Your task to perform on an android device: toggle javascript in the chrome app Image 0: 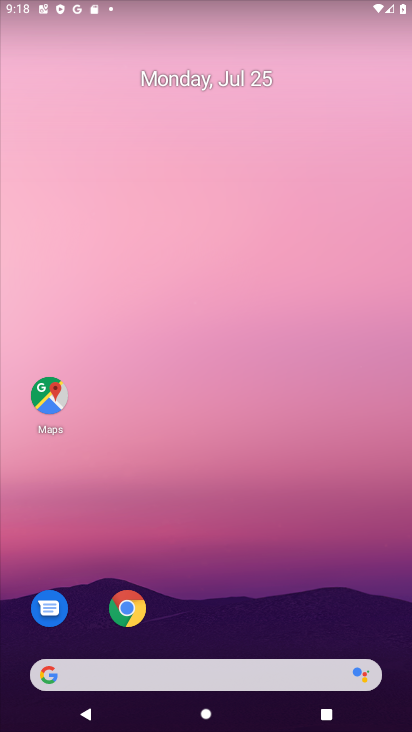
Step 0: drag from (358, 631) to (293, 164)
Your task to perform on an android device: toggle javascript in the chrome app Image 1: 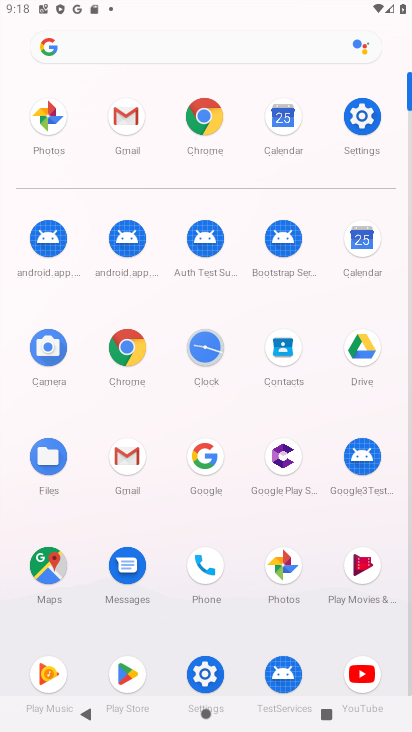
Step 1: click (198, 108)
Your task to perform on an android device: toggle javascript in the chrome app Image 2: 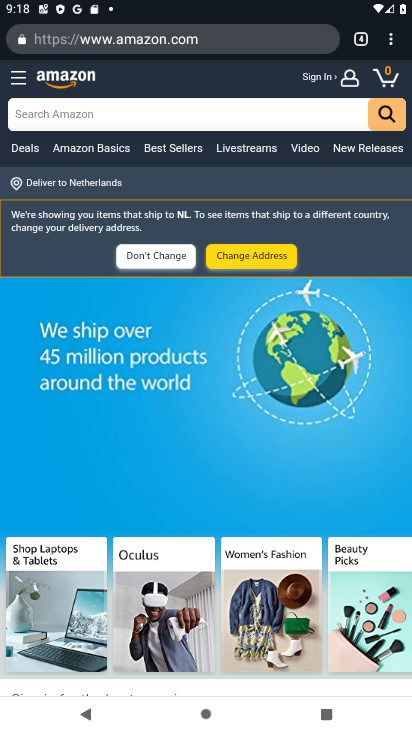
Step 2: click (393, 28)
Your task to perform on an android device: toggle javascript in the chrome app Image 3: 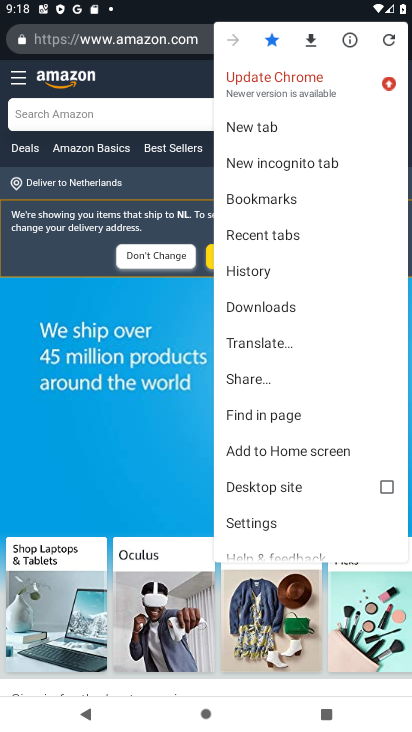
Step 3: click (289, 518)
Your task to perform on an android device: toggle javascript in the chrome app Image 4: 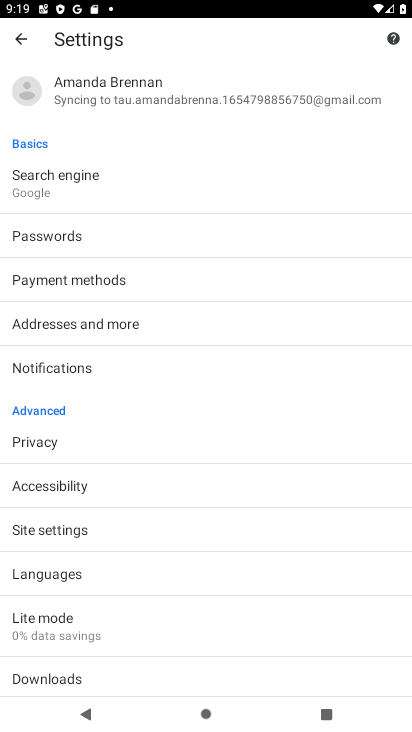
Step 4: click (79, 519)
Your task to perform on an android device: toggle javascript in the chrome app Image 5: 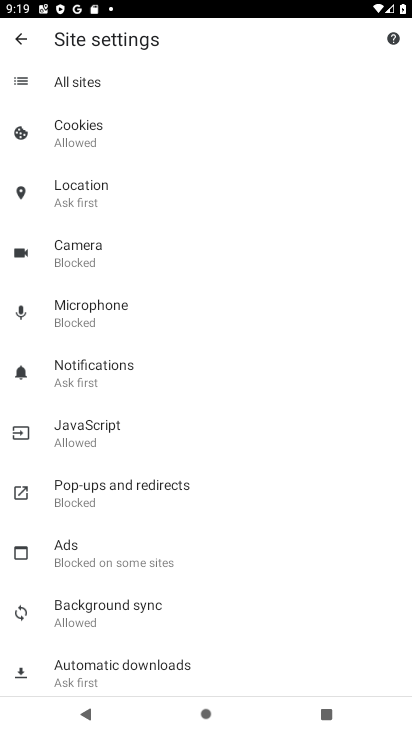
Step 5: click (127, 436)
Your task to perform on an android device: toggle javascript in the chrome app Image 6: 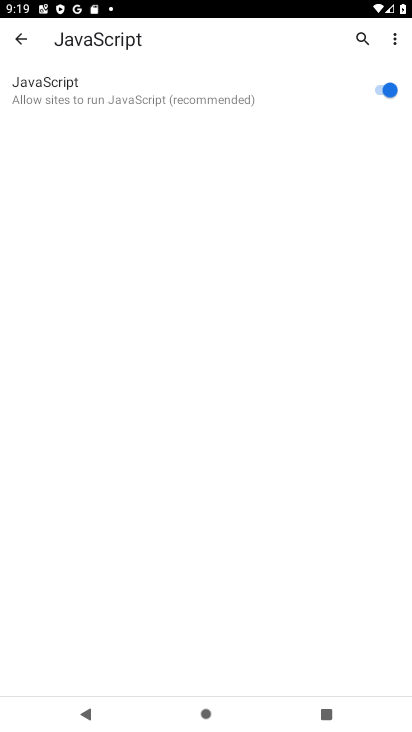
Step 6: click (382, 86)
Your task to perform on an android device: toggle javascript in the chrome app Image 7: 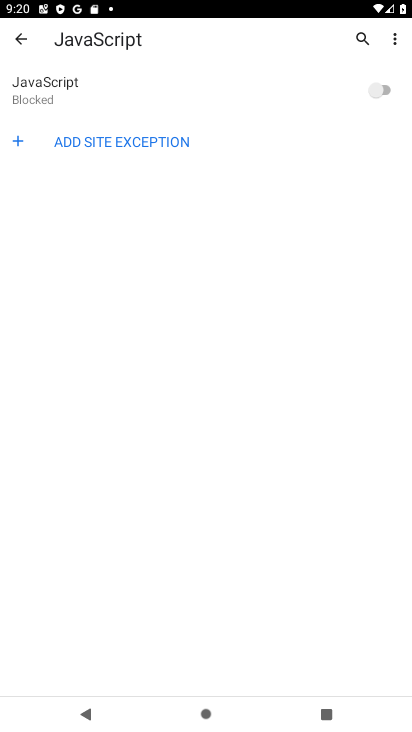
Step 7: task complete